Your task to perform on an android device: toggle location history Image 0: 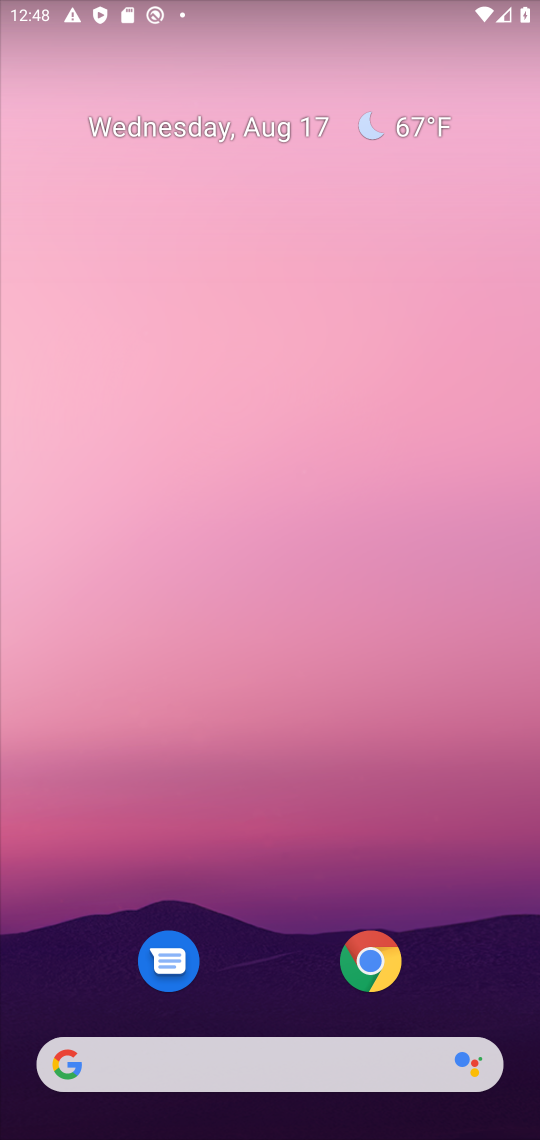
Step 0: drag from (295, 1019) to (467, 9)
Your task to perform on an android device: toggle location history Image 1: 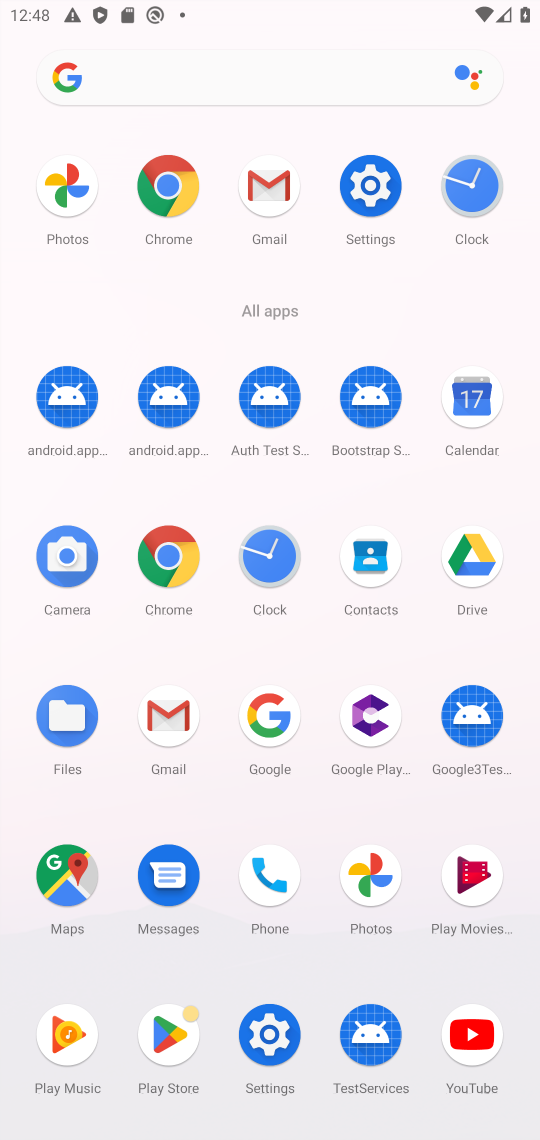
Step 1: click (369, 205)
Your task to perform on an android device: toggle location history Image 2: 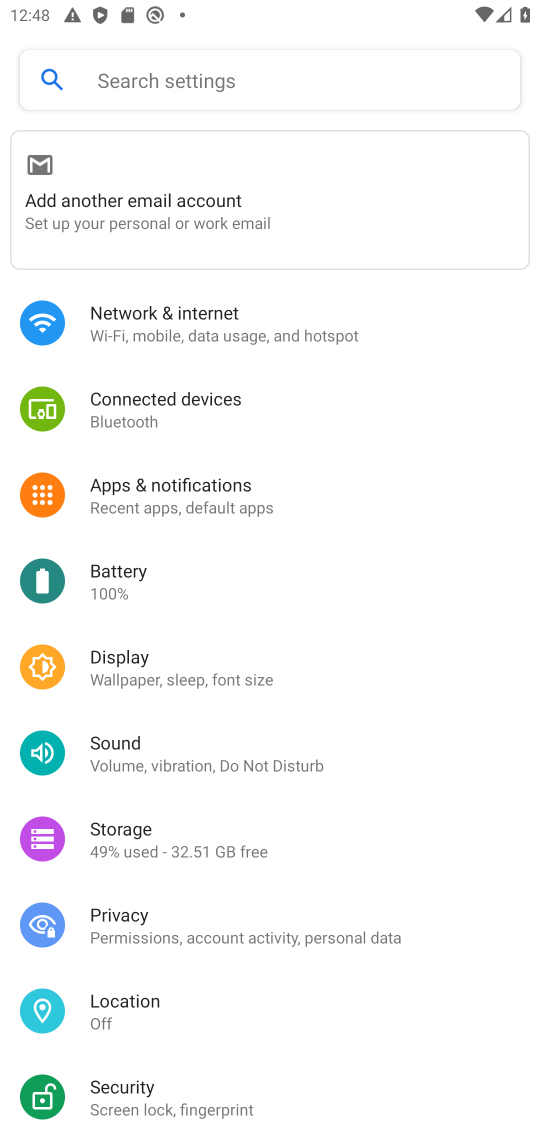
Step 2: click (75, 1006)
Your task to perform on an android device: toggle location history Image 3: 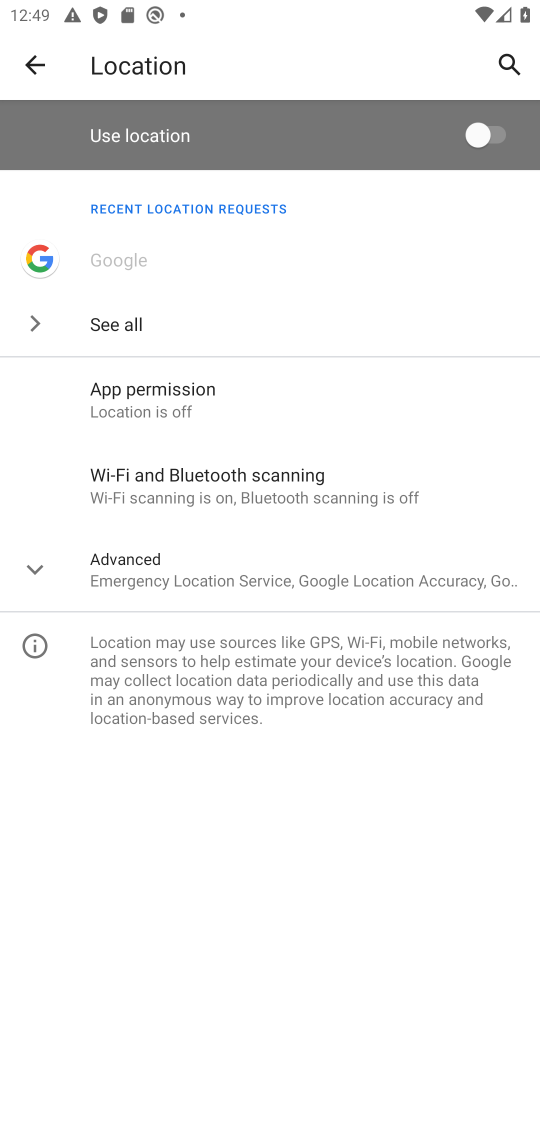
Step 3: click (191, 562)
Your task to perform on an android device: toggle location history Image 4: 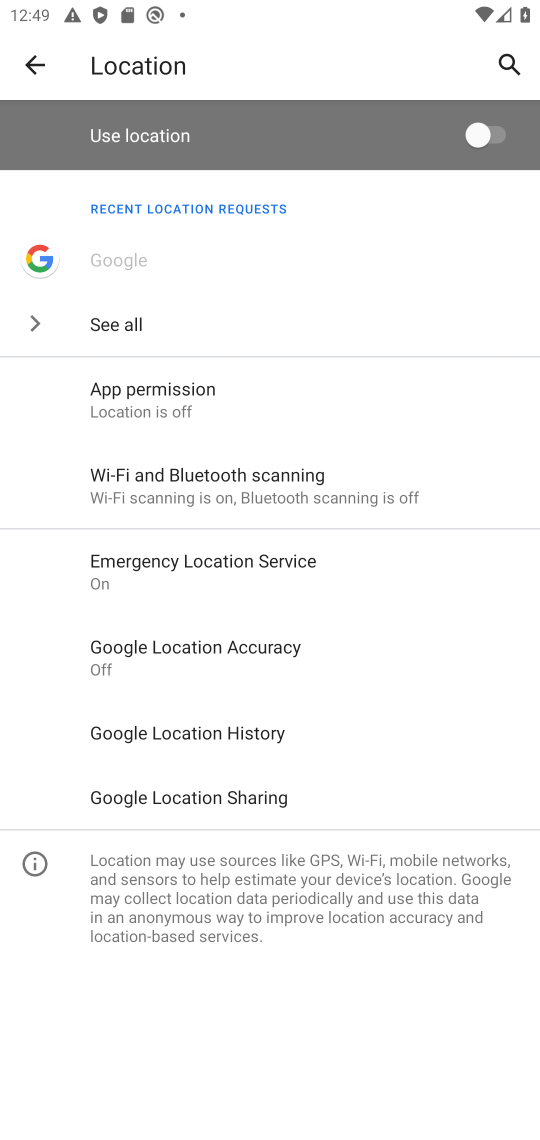
Step 4: click (225, 738)
Your task to perform on an android device: toggle location history Image 5: 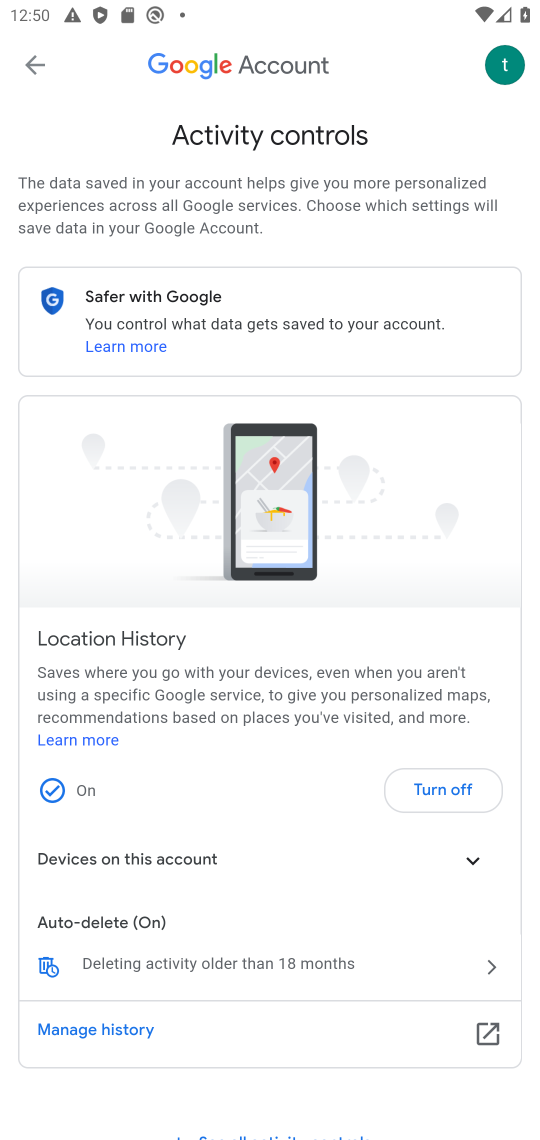
Step 5: click (441, 788)
Your task to perform on an android device: toggle location history Image 6: 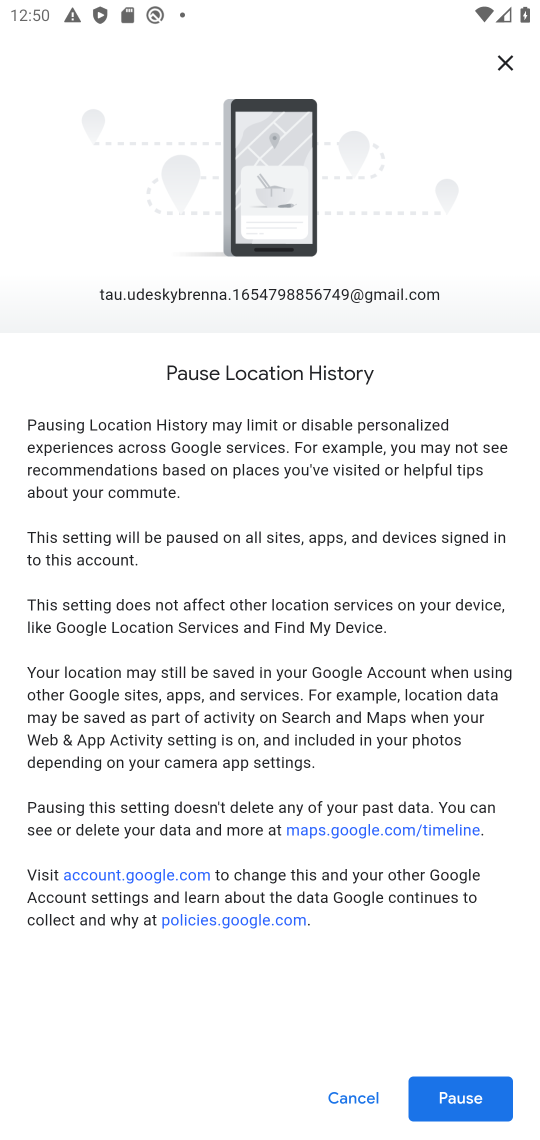
Step 6: click (458, 1108)
Your task to perform on an android device: toggle location history Image 7: 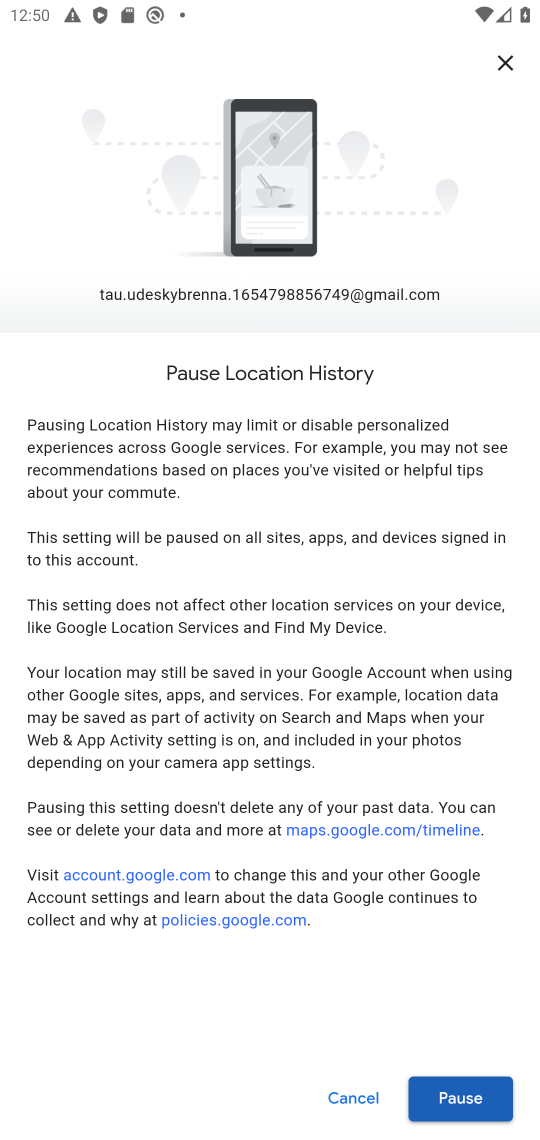
Step 7: click (489, 1091)
Your task to perform on an android device: toggle location history Image 8: 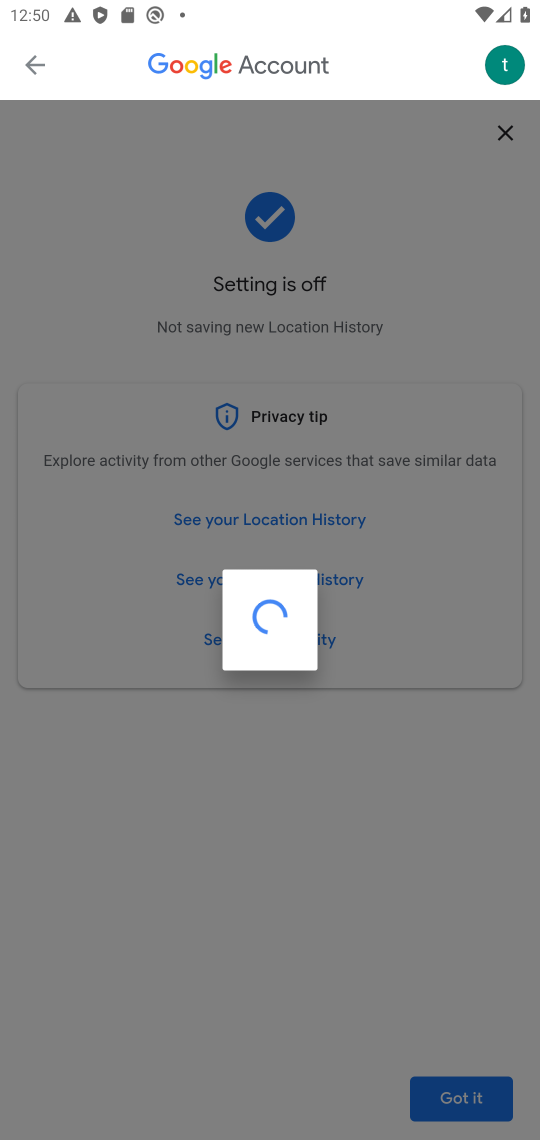
Step 8: click (489, 1114)
Your task to perform on an android device: toggle location history Image 9: 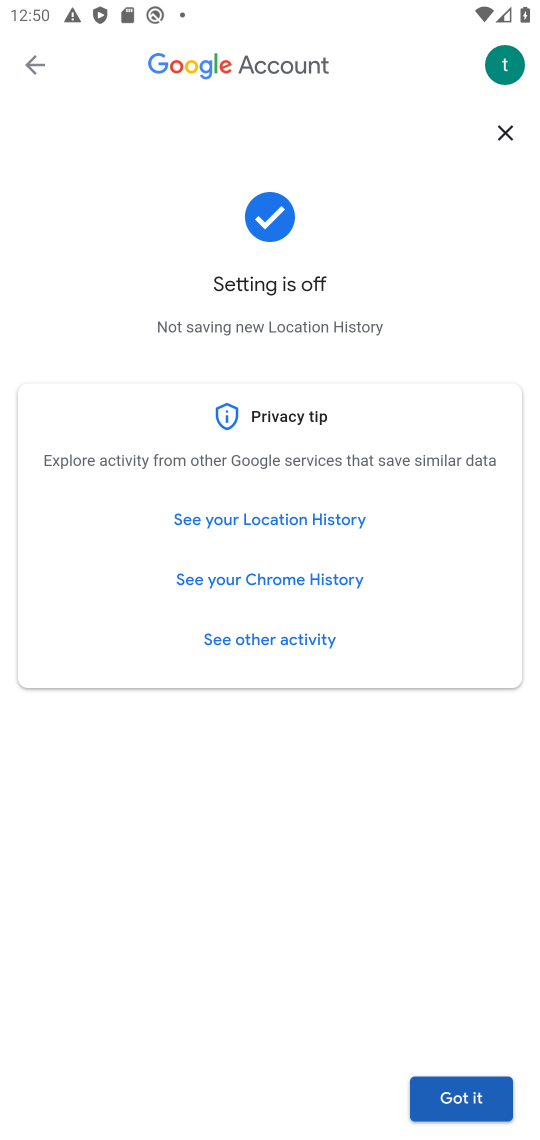
Step 9: click (489, 1114)
Your task to perform on an android device: toggle location history Image 10: 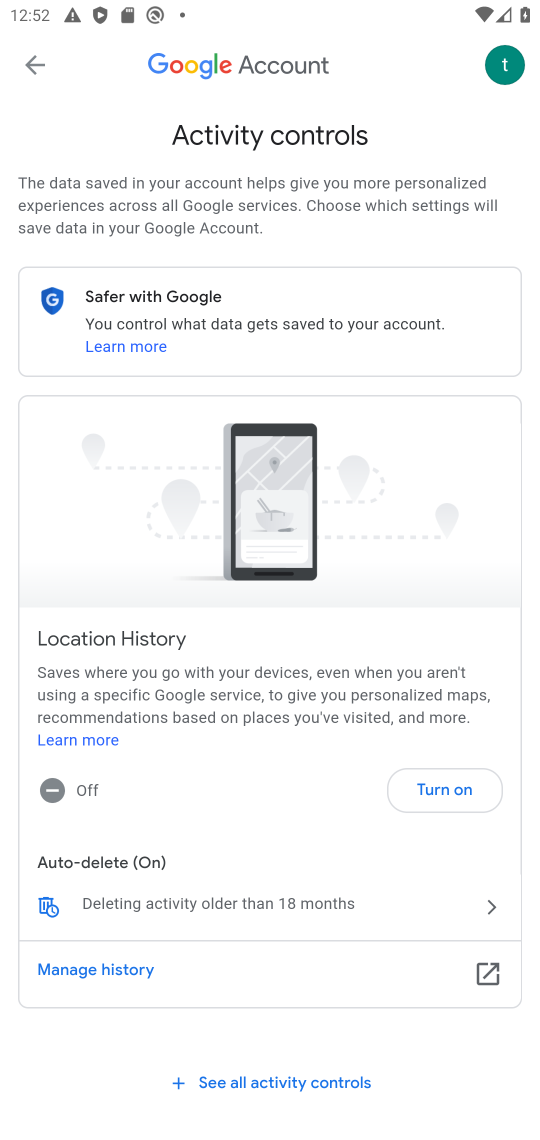
Step 10: click (486, 795)
Your task to perform on an android device: toggle location history Image 11: 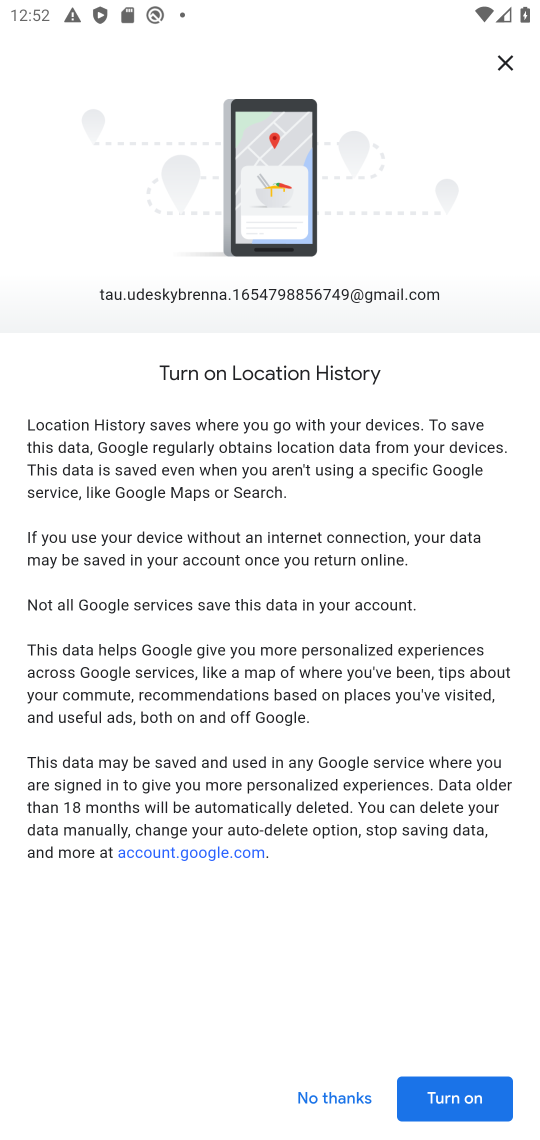
Step 11: click (444, 1107)
Your task to perform on an android device: toggle location history Image 12: 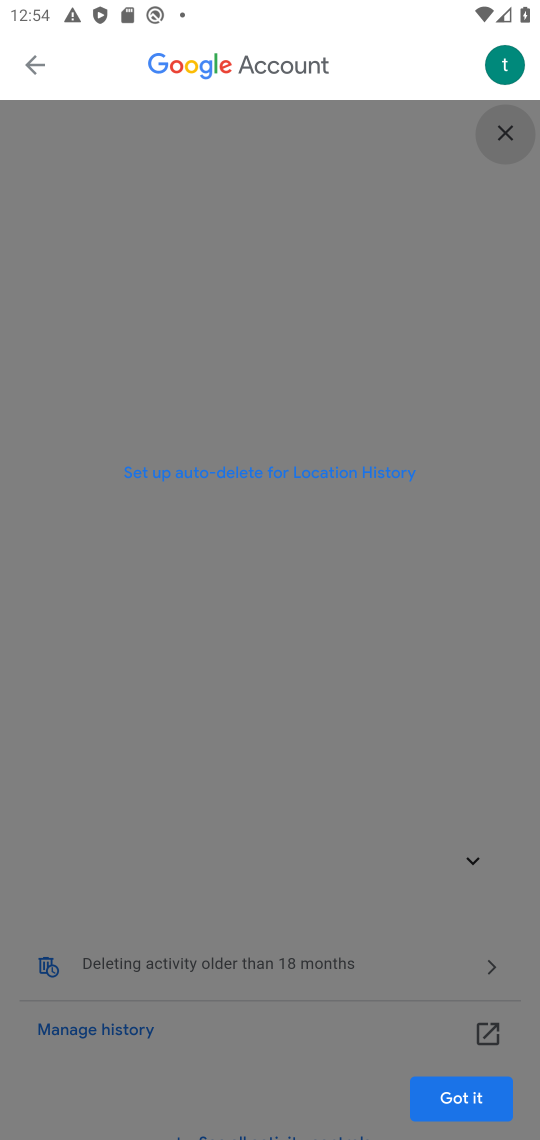
Step 12: click (451, 1106)
Your task to perform on an android device: toggle location history Image 13: 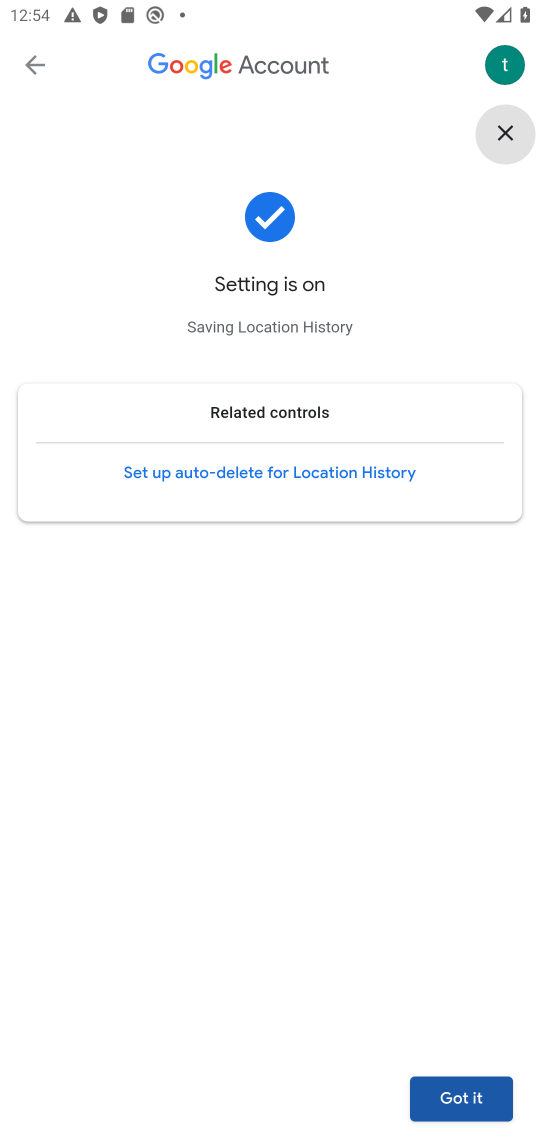
Step 13: task complete